Your task to perform on an android device: Go to notification settings Image 0: 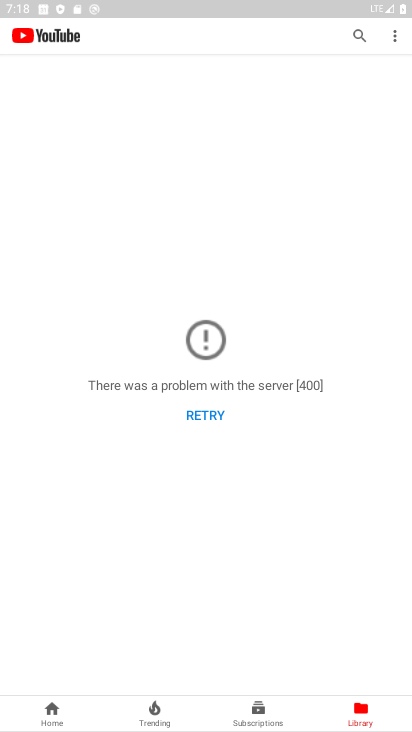
Step 0: press home button
Your task to perform on an android device: Go to notification settings Image 1: 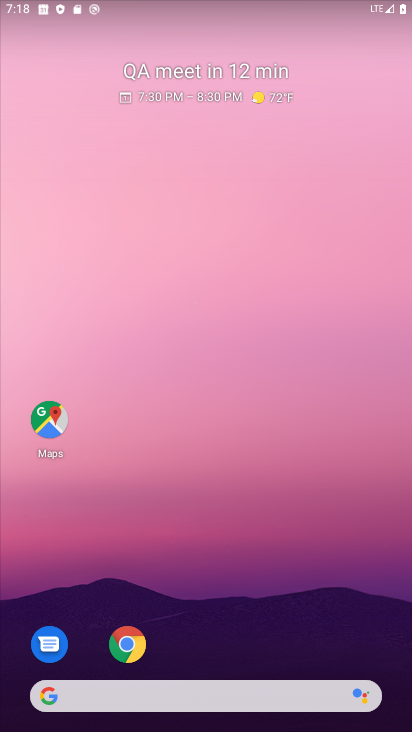
Step 1: drag from (244, 690) to (193, 356)
Your task to perform on an android device: Go to notification settings Image 2: 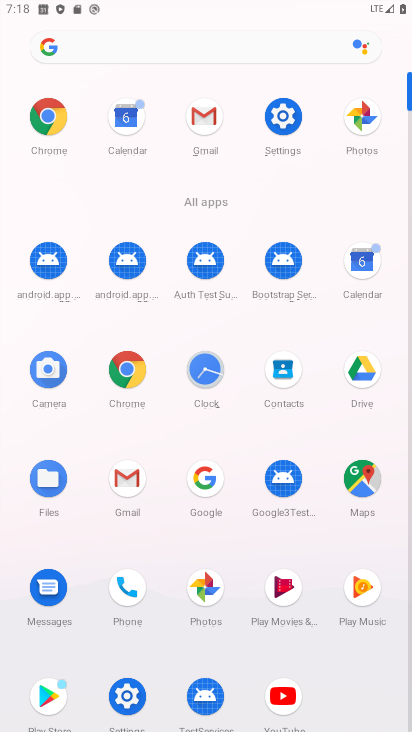
Step 2: click (122, 694)
Your task to perform on an android device: Go to notification settings Image 3: 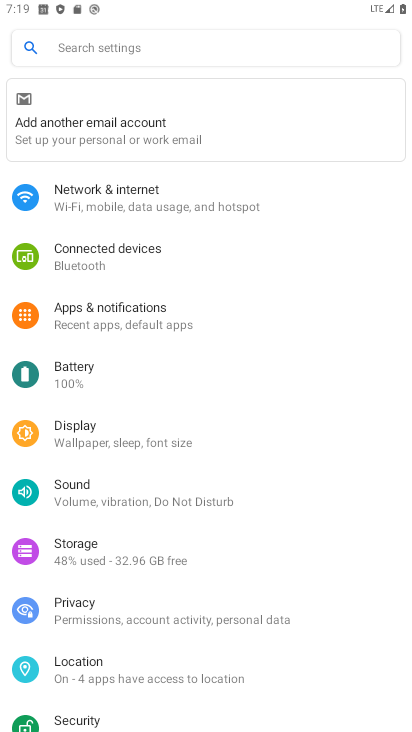
Step 3: click (122, 52)
Your task to perform on an android device: Go to notification settings Image 4: 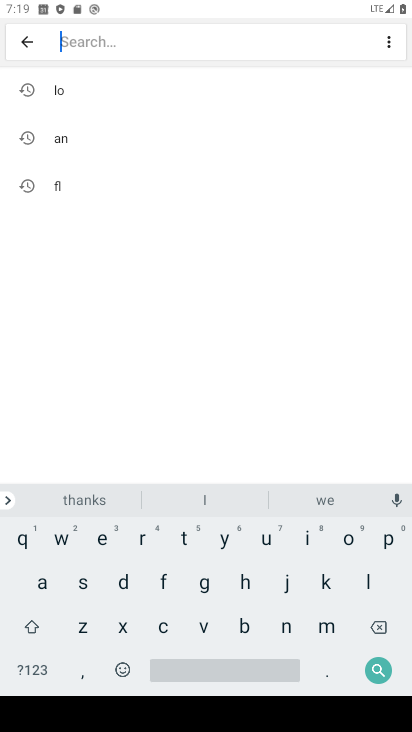
Step 4: click (285, 636)
Your task to perform on an android device: Go to notification settings Image 5: 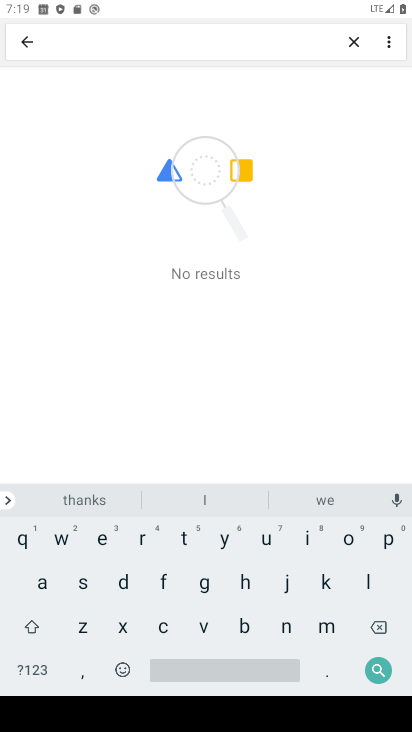
Step 5: click (342, 537)
Your task to perform on an android device: Go to notification settings Image 6: 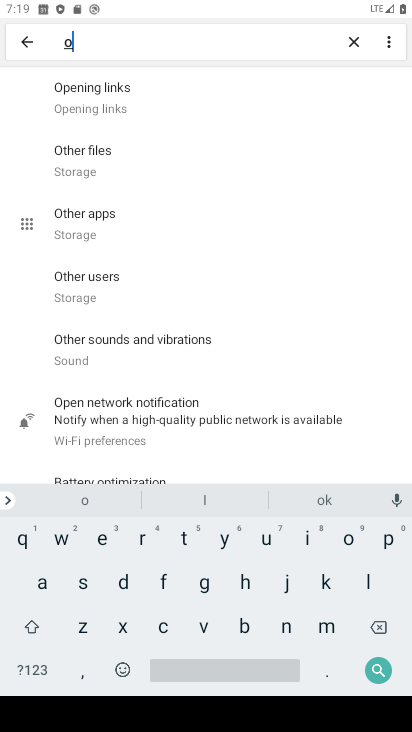
Step 6: click (384, 637)
Your task to perform on an android device: Go to notification settings Image 7: 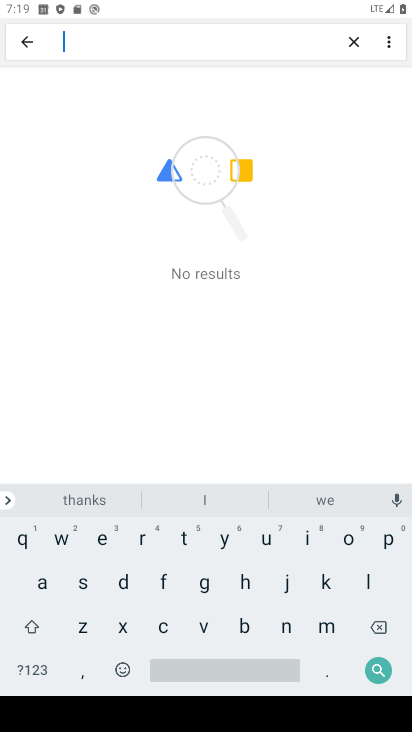
Step 7: click (280, 625)
Your task to perform on an android device: Go to notification settings Image 8: 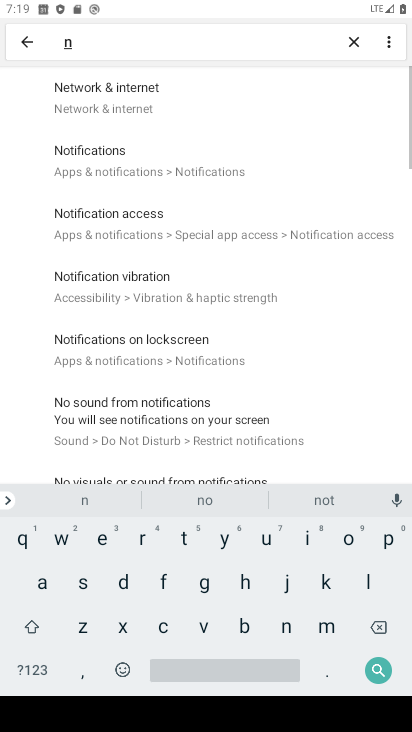
Step 8: click (346, 533)
Your task to perform on an android device: Go to notification settings Image 9: 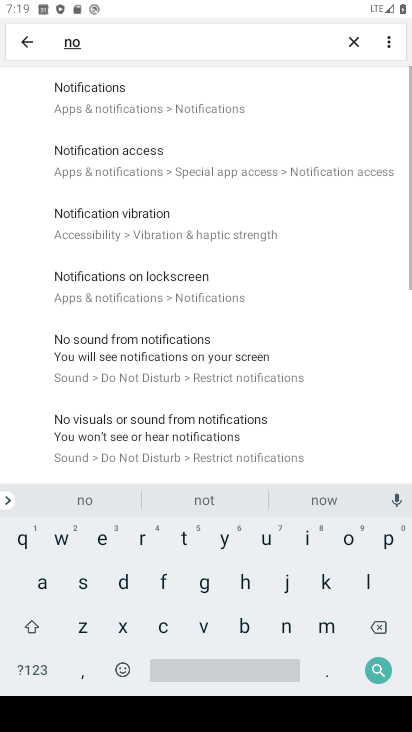
Step 9: click (123, 89)
Your task to perform on an android device: Go to notification settings Image 10: 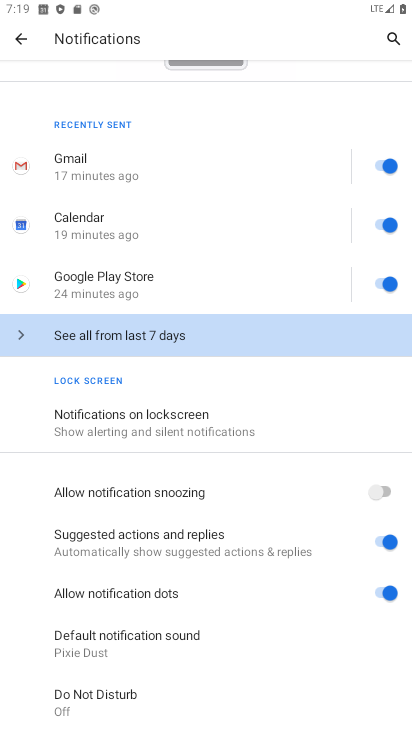
Step 10: click (88, 416)
Your task to perform on an android device: Go to notification settings Image 11: 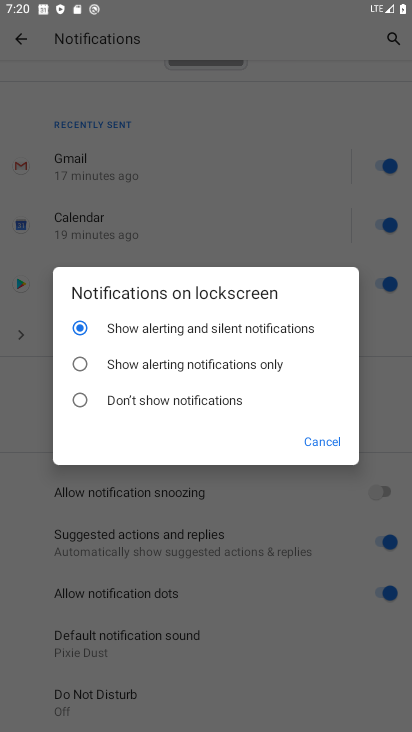
Step 11: task complete